Your task to perform on an android device: turn on bluetooth scan Image 0: 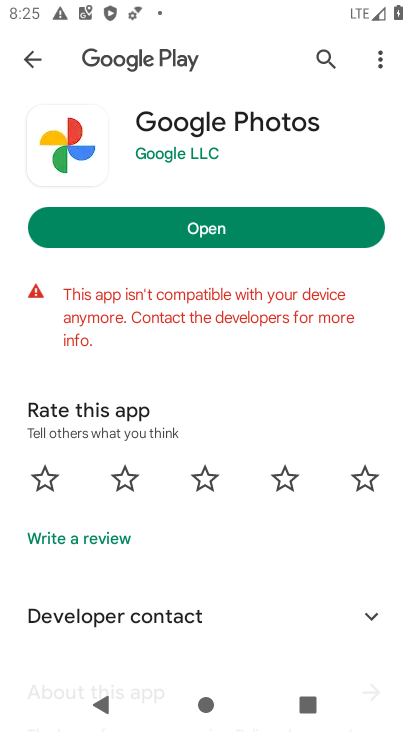
Step 0: press home button
Your task to perform on an android device: turn on bluetooth scan Image 1: 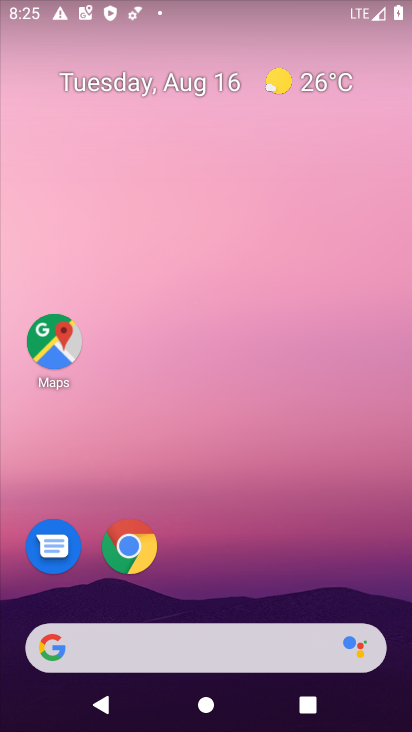
Step 1: drag from (230, 536) to (173, 1)
Your task to perform on an android device: turn on bluetooth scan Image 2: 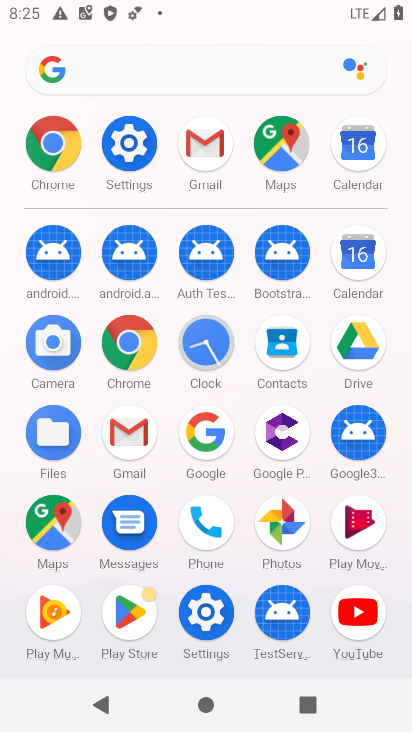
Step 2: click (132, 144)
Your task to perform on an android device: turn on bluetooth scan Image 3: 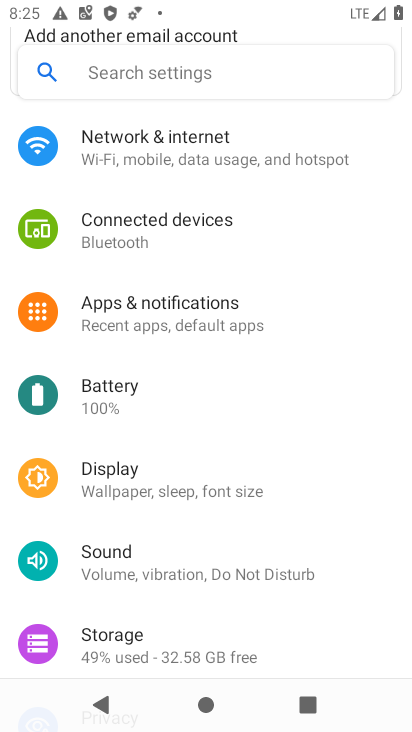
Step 3: drag from (220, 553) to (198, 242)
Your task to perform on an android device: turn on bluetooth scan Image 4: 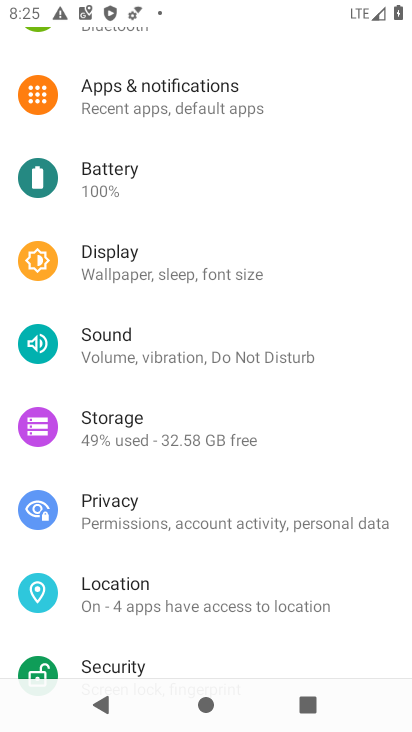
Step 4: click (176, 592)
Your task to perform on an android device: turn on bluetooth scan Image 5: 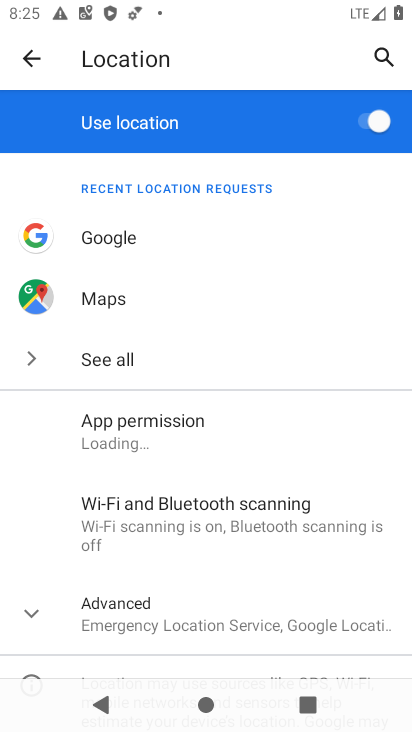
Step 5: click (220, 516)
Your task to perform on an android device: turn on bluetooth scan Image 6: 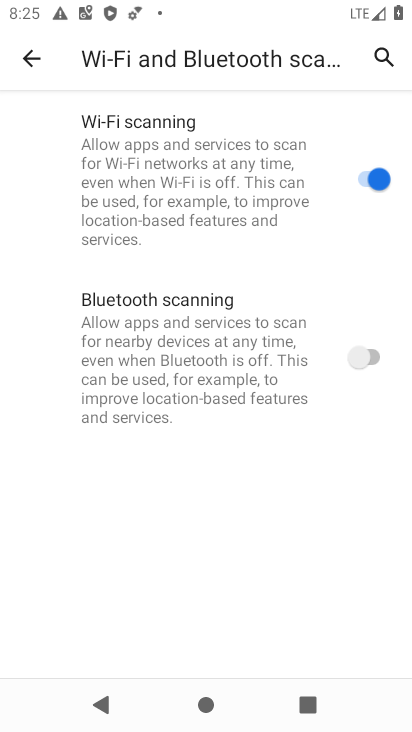
Step 6: click (360, 355)
Your task to perform on an android device: turn on bluetooth scan Image 7: 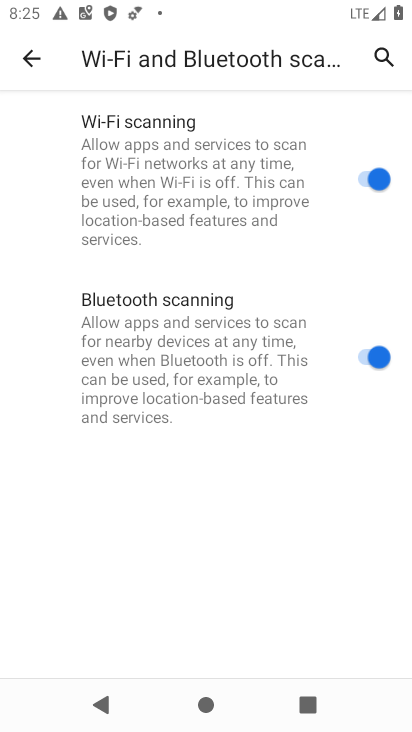
Step 7: task complete